Your task to perform on an android device: install app "Spotify: Music and Podcasts" Image 0: 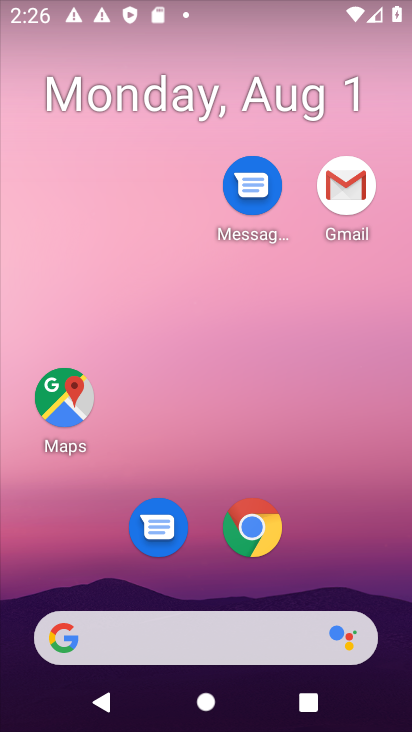
Step 0: drag from (198, 639) to (222, 107)
Your task to perform on an android device: install app "Spotify: Music and Podcasts" Image 1: 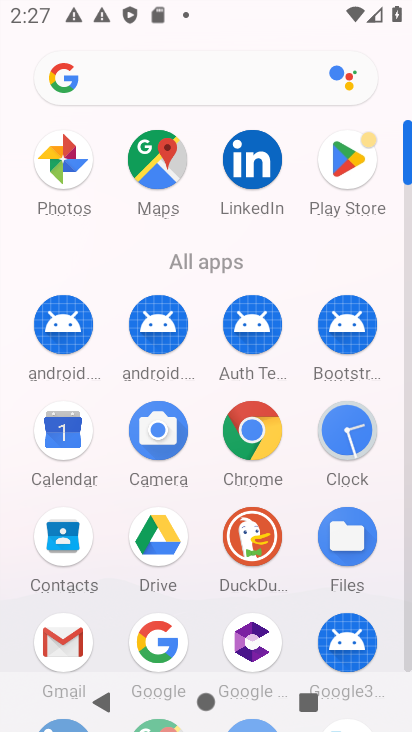
Step 1: click (324, 169)
Your task to perform on an android device: install app "Spotify: Music and Podcasts" Image 2: 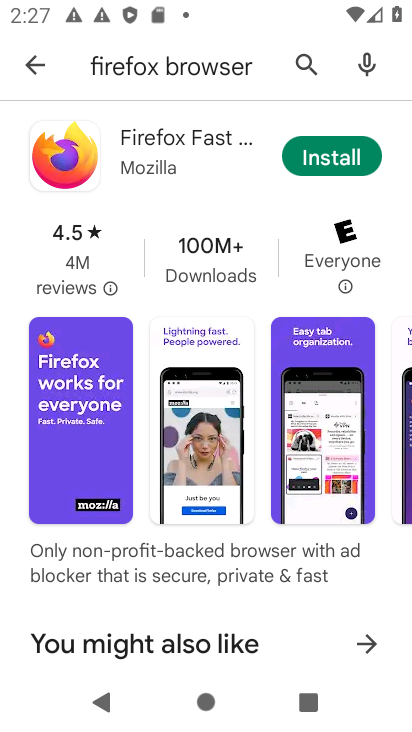
Step 2: click (306, 59)
Your task to perform on an android device: install app "Spotify: Music and Podcasts" Image 3: 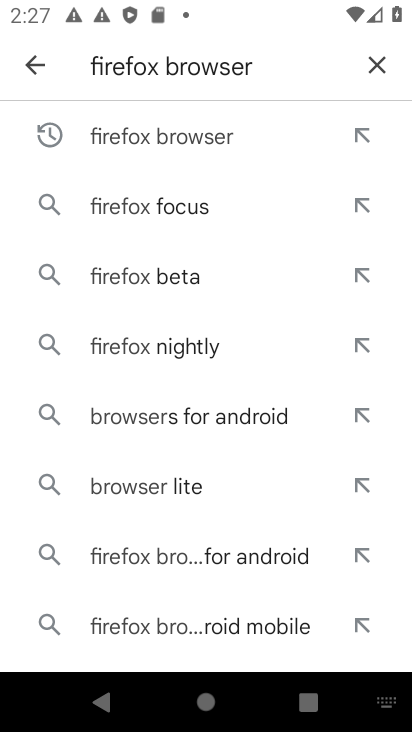
Step 3: click (375, 66)
Your task to perform on an android device: install app "Spotify: Music and Podcasts" Image 4: 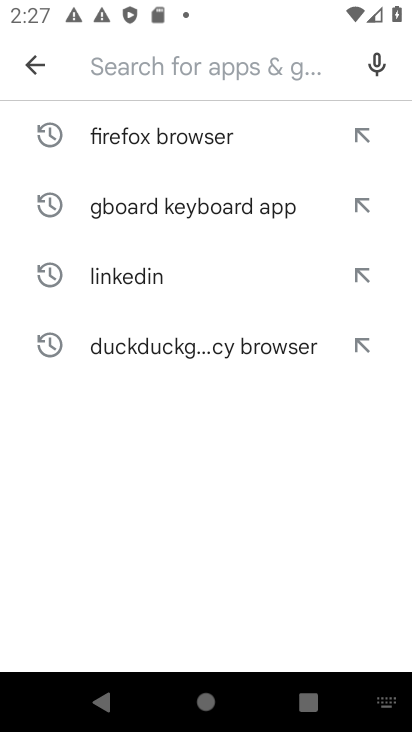
Step 4: type "spotify: music and podcasts"
Your task to perform on an android device: install app "Spotify: Music and Podcasts" Image 5: 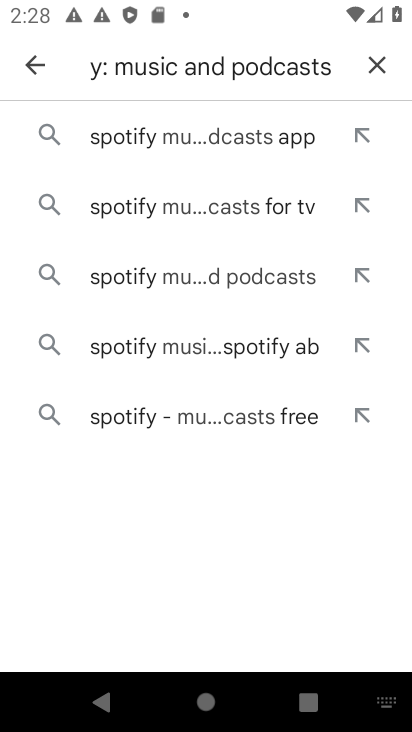
Step 5: click (137, 135)
Your task to perform on an android device: install app "Spotify: Music and Podcasts" Image 6: 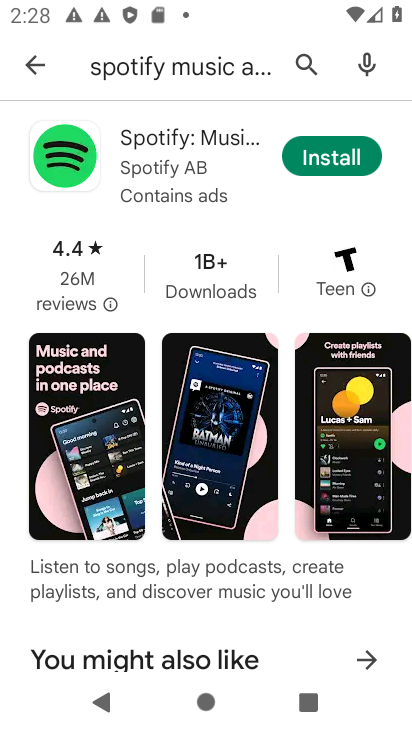
Step 6: click (333, 143)
Your task to perform on an android device: install app "Spotify: Music and Podcasts" Image 7: 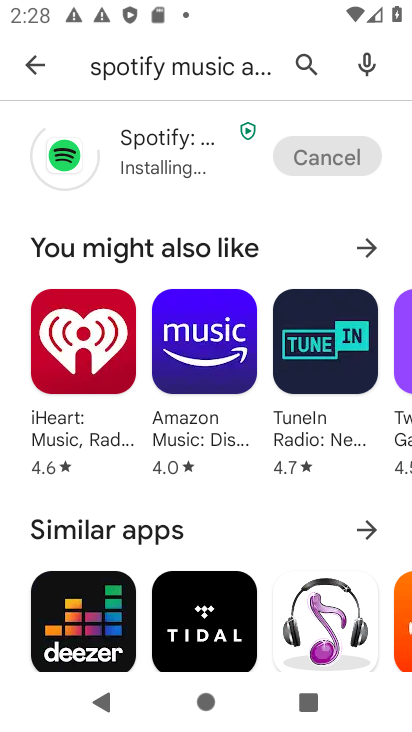
Step 7: click (333, 143)
Your task to perform on an android device: install app "Spotify: Music and Podcasts" Image 8: 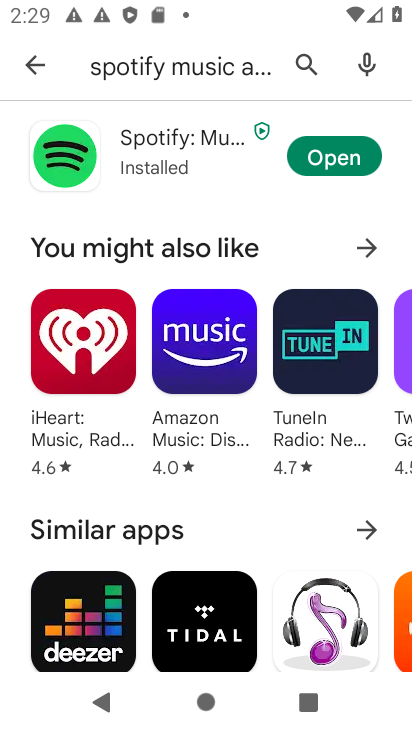
Step 8: task complete